Your task to perform on an android device: Go to ESPN.com Image 0: 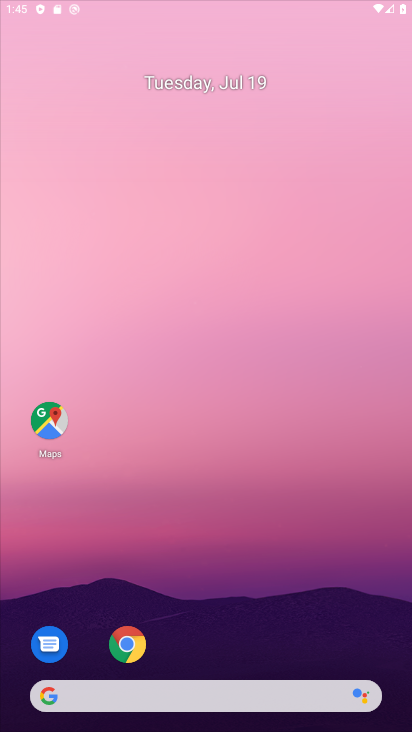
Step 0: click (131, 637)
Your task to perform on an android device: Go to ESPN.com Image 1: 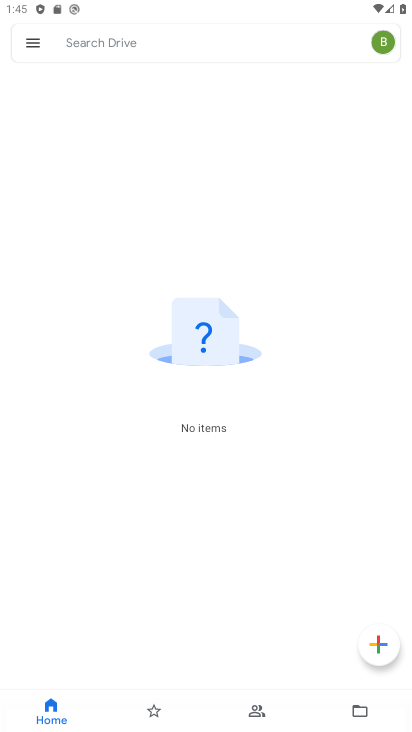
Step 1: press home button
Your task to perform on an android device: Go to ESPN.com Image 2: 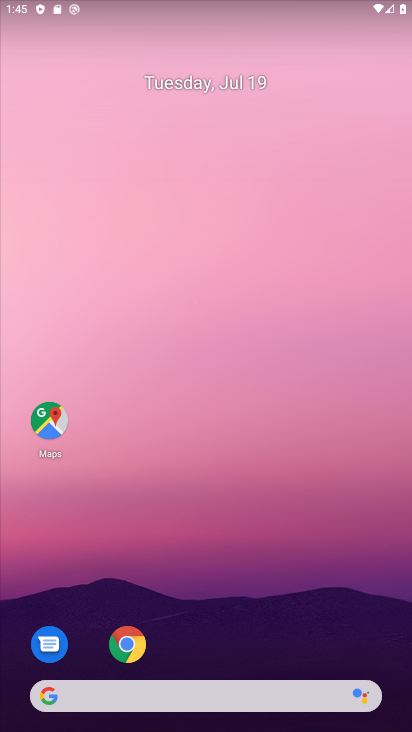
Step 2: click (135, 656)
Your task to perform on an android device: Go to ESPN.com Image 3: 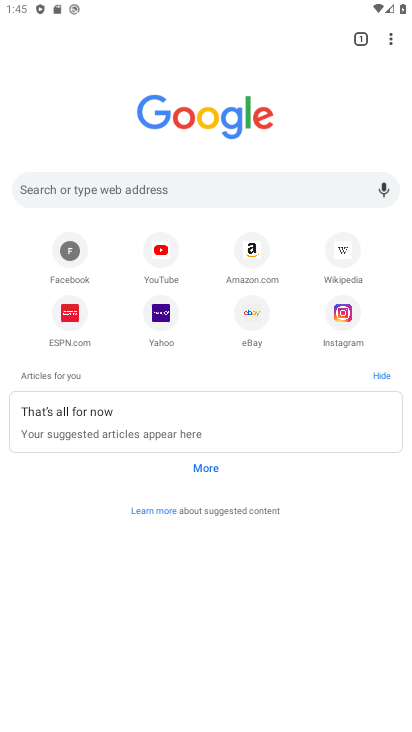
Step 3: click (69, 342)
Your task to perform on an android device: Go to ESPN.com Image 4: 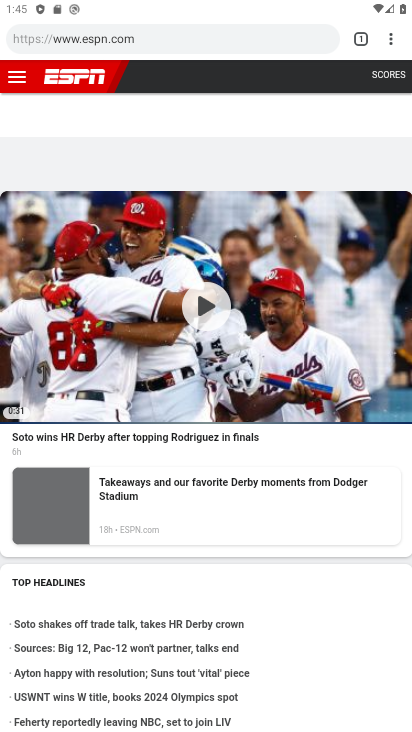
Step 4: task complete